Your task to perform on an android device: Show me popular games on the Play Store Image 0: 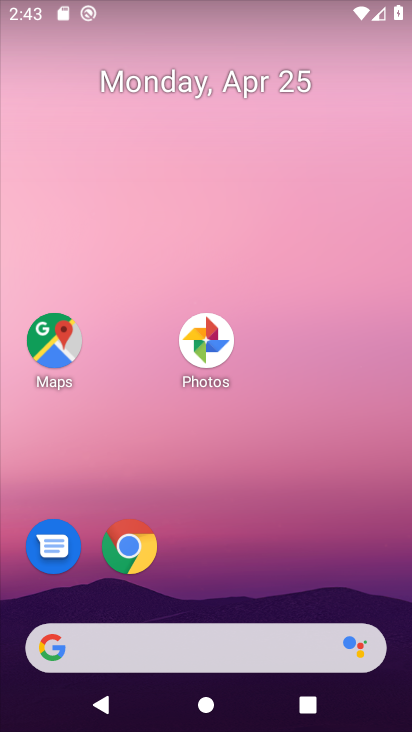
Step 0: drag from (293, 550) to (343, 233)
Your task to perform on an android device: Show me popular games on the Play Store Image 1: 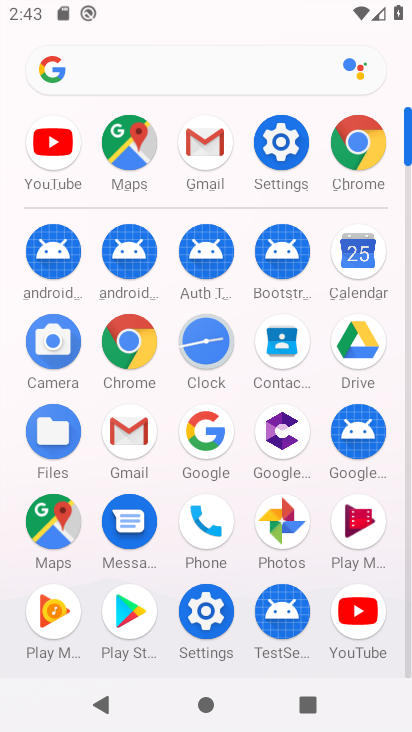
Step 1: click (126, 609)
Your task to perform on an android device: Show me popular games on the Play Store Image 2: 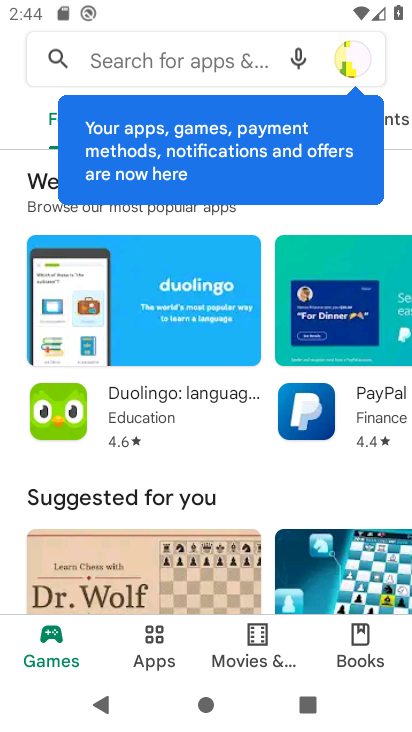
Step 2: click (68, 646)
Your task to perform on an android device: Show me popular games on the Play Store Image 3: 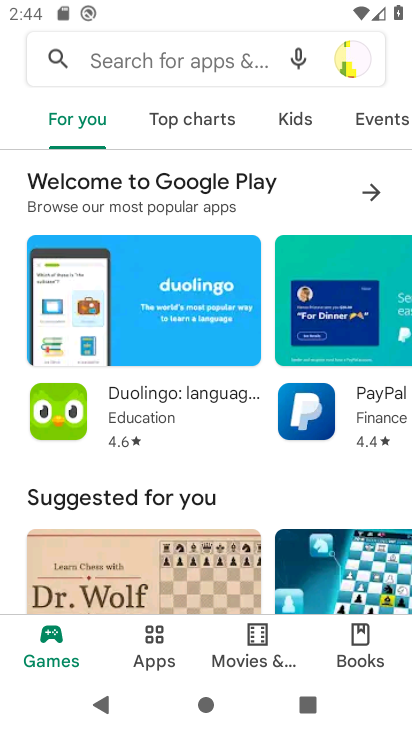
Step 3: drag from (193, 531) to (284, 159)
Your task to perform on an android device: Show me popular games on the Play Store Image 4: 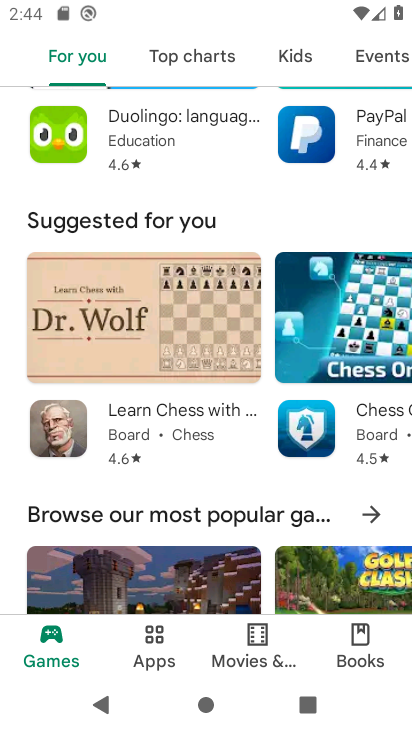
Step 4: click (189, 63)
Your task to perform on an android device: Show me popular games on the Play Store Image 5: 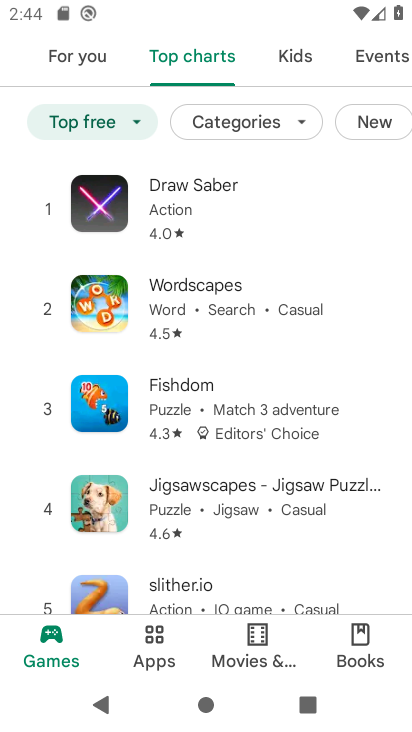
Step 5: task complete